Your task to perform on an android device: Open wifi settings Image 0: 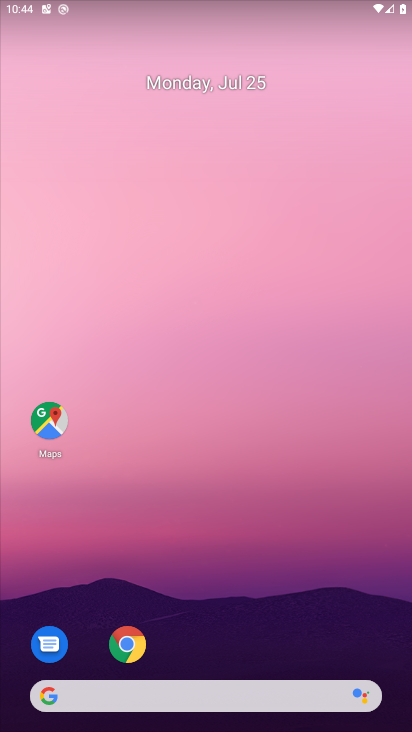
Step 0: press home button
Your task to perform on an android device: Open wifi settings Image 1: 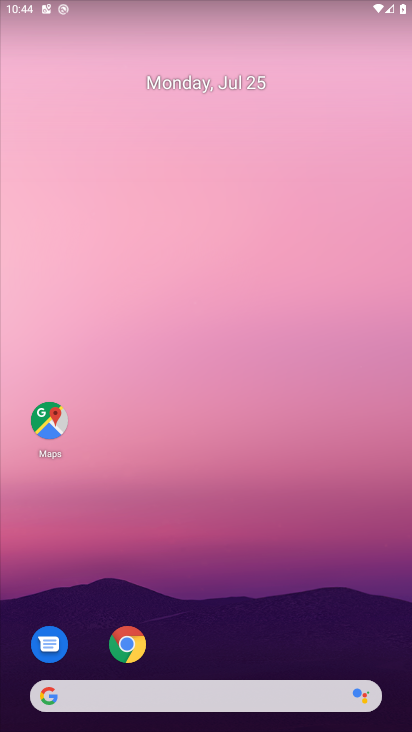
Step 1: press home button
Your task to perform on an android device: Open wifi settings Image 2: 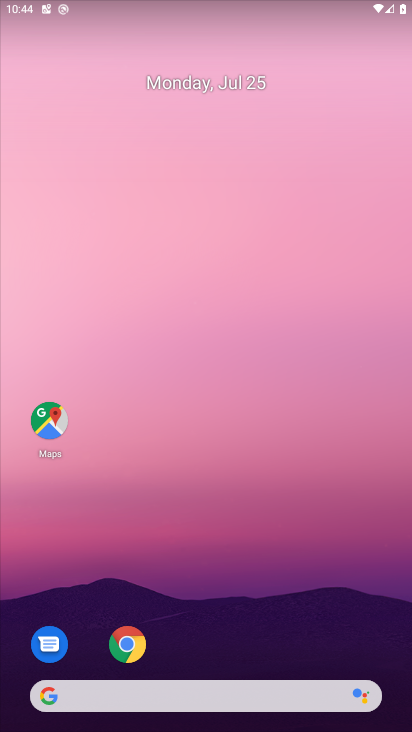
Step 2: drag from (393, 24) to (411, 375)
Your task to perform on an android device: Open wifi settings Image 3: 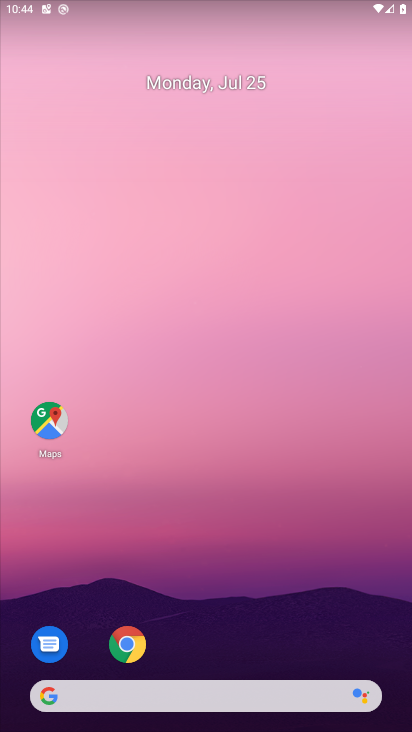
Step 3: drag from (368, 76) to (372, 538)
Your task to perform on an android device: Open wifi settings Image 4: 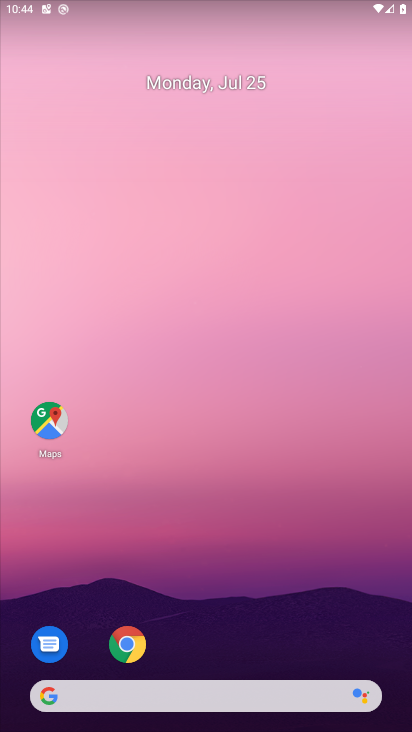
Step 4: drag from (393, 6) to (410, 449)
Your task to perform on an android device: Open wifi settings Image 5: 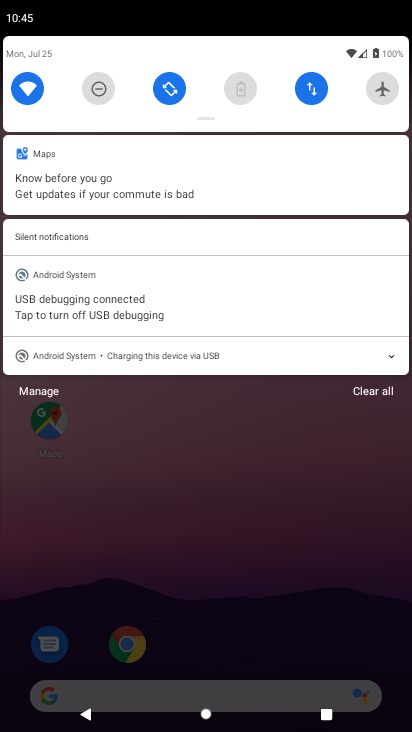
Step 5: click (31, 107)
Your task to perform on an android device: Open wifi settings Image 6: 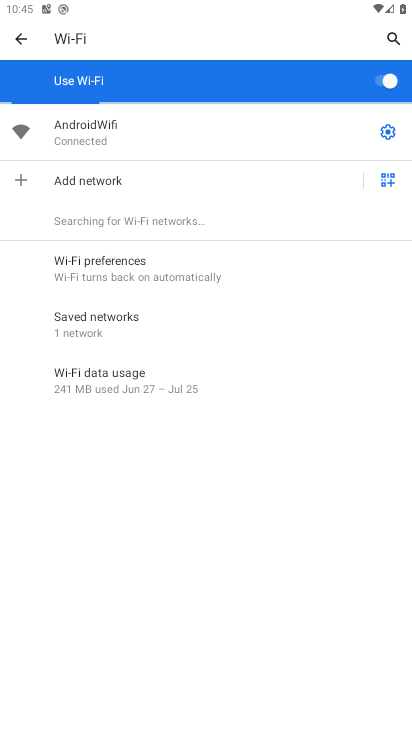
Step 6: task complete